Your task to perform on an android device: delete a single message in the gmail app Image 0: 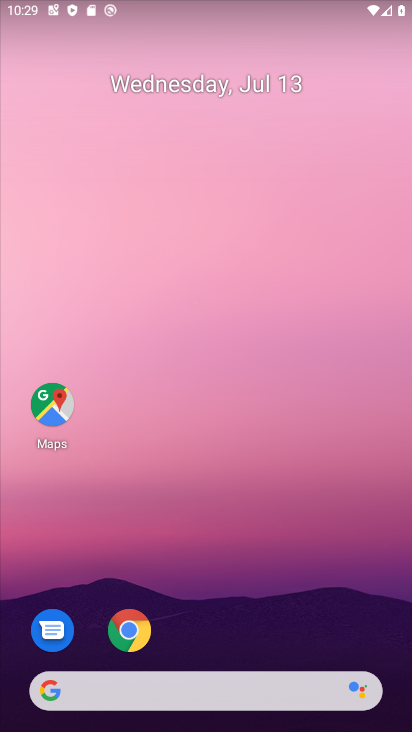
Step 0: drag from (274, 508) to (133, 1)
Your task to perform on an android device: delete a single message in the gmail app Image 1: 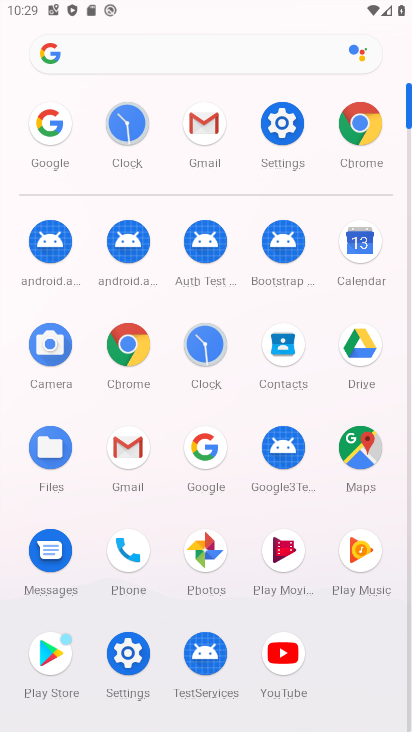
Step 1: click (209, 127)
Your task to perform on an android device: delete a single message in the gmail app Image 2: 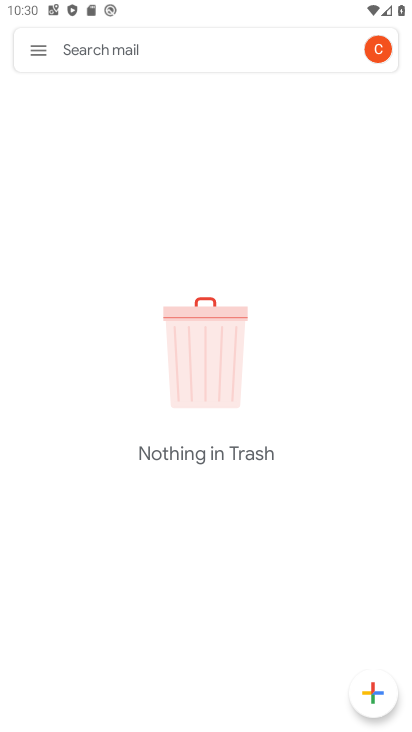
Step 2: click (33, 50)
Your task to perform on an android device: delete a single message in the gmail app Image 3: 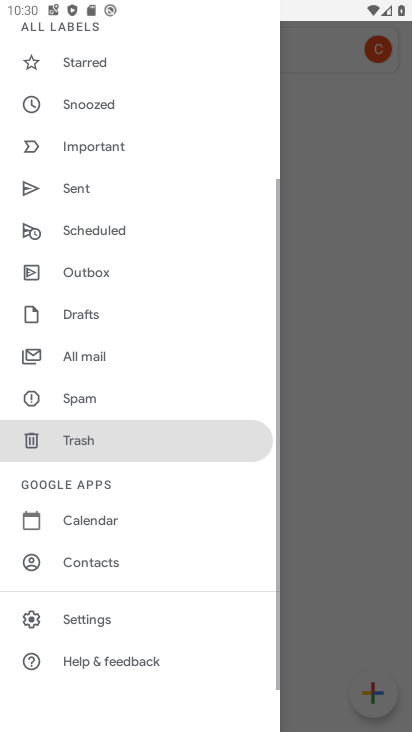
Step 3: drag from (84, 128) to (71, 634)
Your task to perform on an android device: delete a single message in the gmail app Image 4: 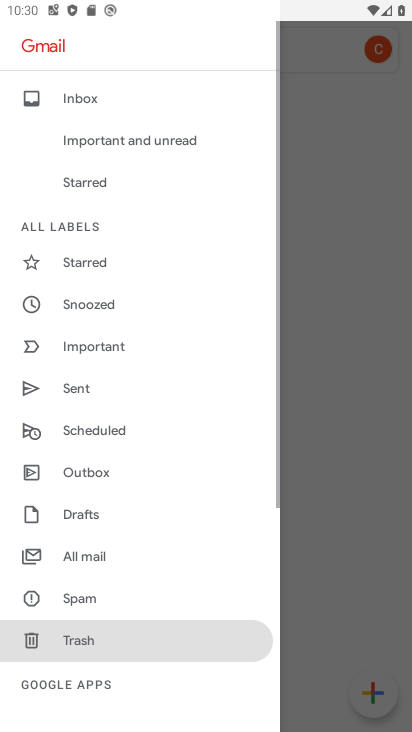
Step 4: click (91, 99)
Your task to perform on an android device: delete a single message in the gmail app Image 5: 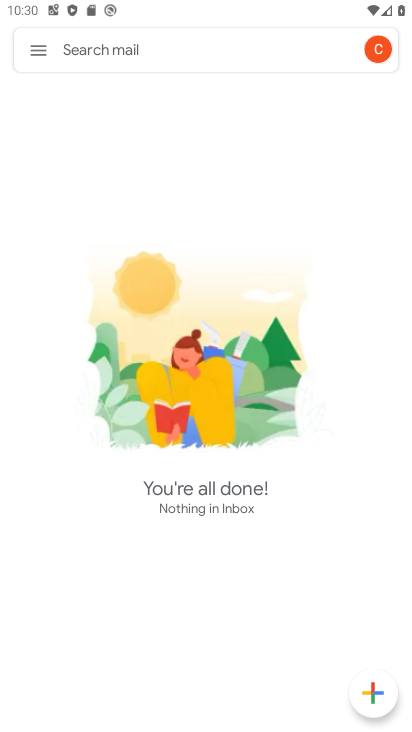
Step 5: task complete